Your task to perform on an android device: Open the stopwatch Image 0: 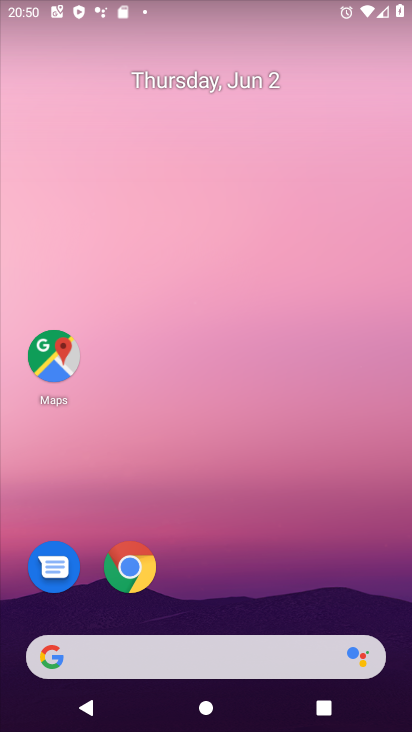
Step 0: drag from (276, 575) to (232, 167)
Your task to perform on an android device: Open the stopwatch Image 1: 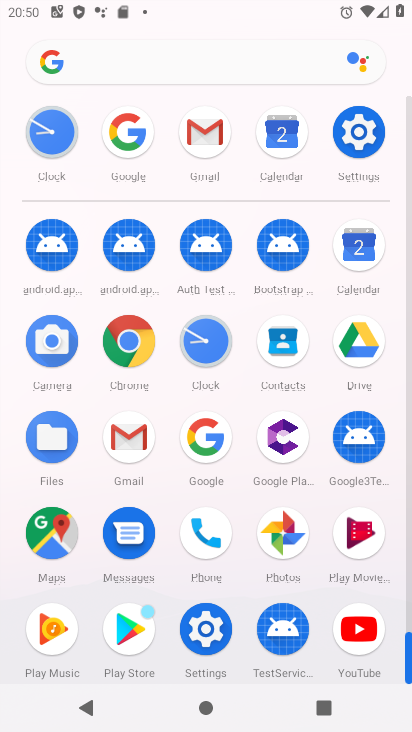
Step 1: click (51, 132)
Your task to perform on an android device: Open the stopwatch Image 2: 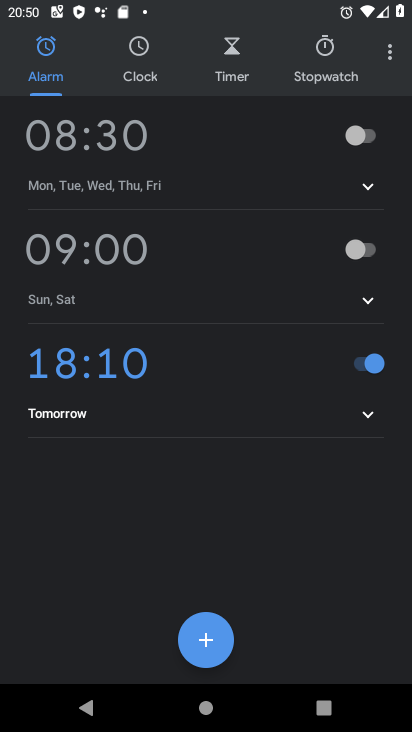
Step 2: click (330, 57)
Your task to perform on an android device: Open the stopwatch Image 3: 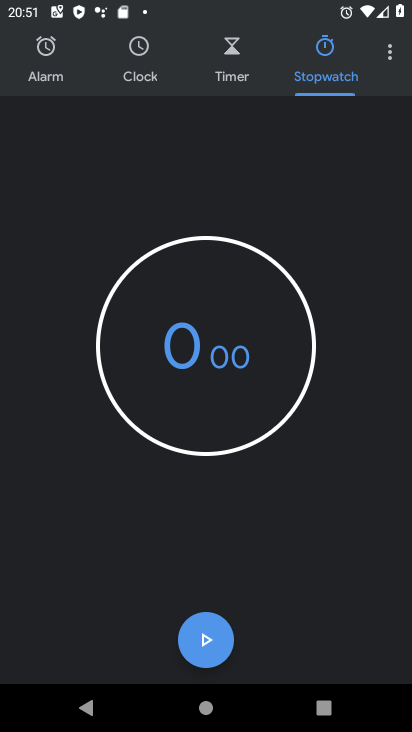
Step 3: task complete